Your task to perform on an android device: Go to battery settings Image 0: 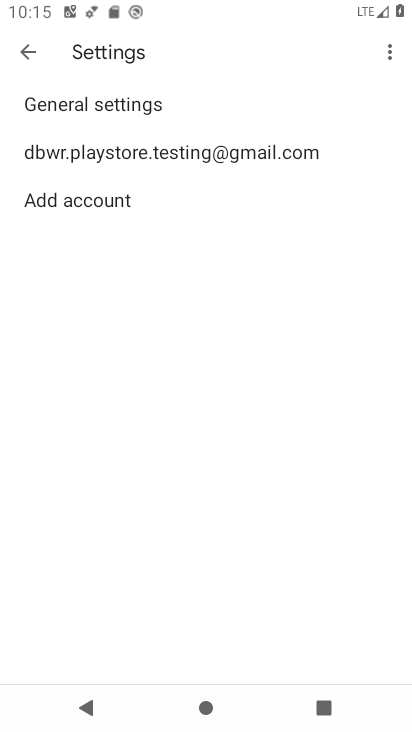
Step 0: press home button
Your task to perform on an android device: Go to battery settings Image 1: 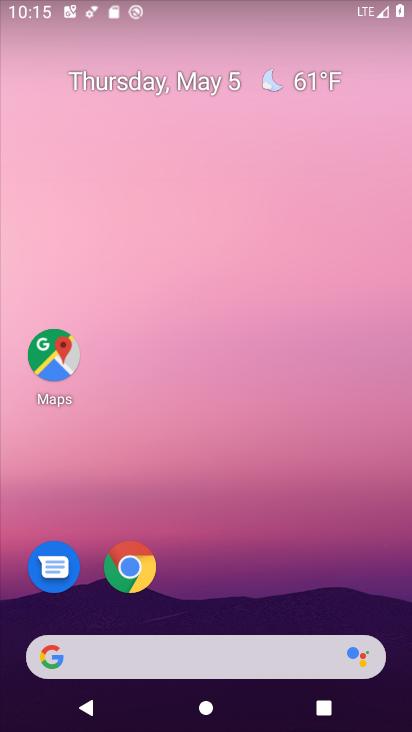
Step 1: drag from (252, 577) to (250, 84)
Your task to perform on an android device: Go to battery settings Image 2: 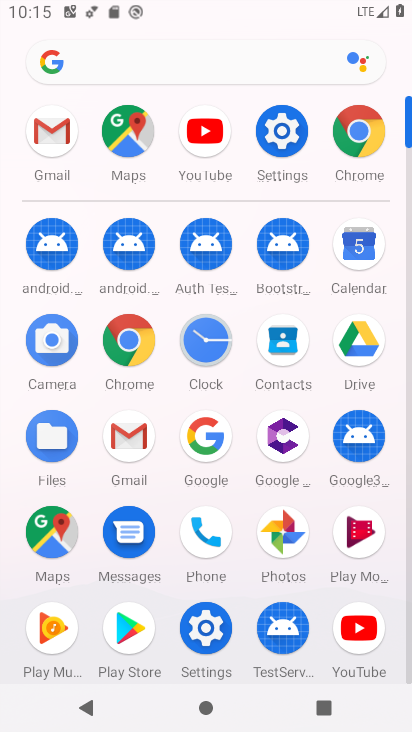
Step 2: click (212, 629)
Your task to perform on an android device: Go to battery settings Image 3: 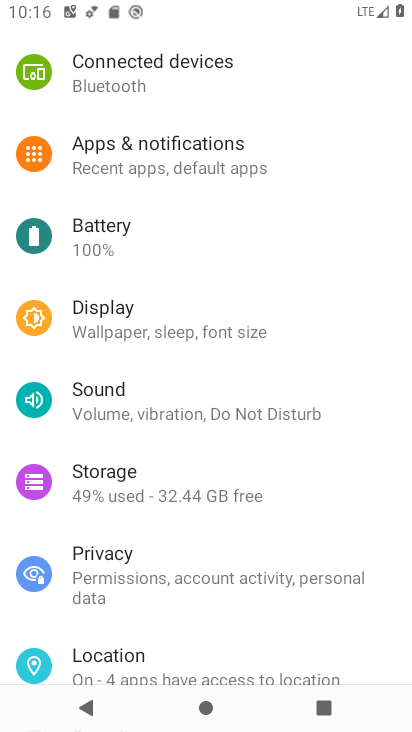
Step 3: click (141, 235)
Your task to perform on an android device: Go to battery settings Image 4: 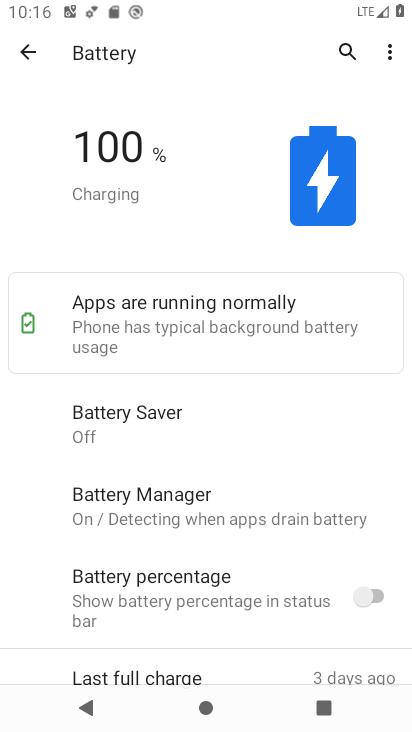
Step 4: task complete